Your task to perform on an android device: turn off notifications settings in the gmail app Image 0: 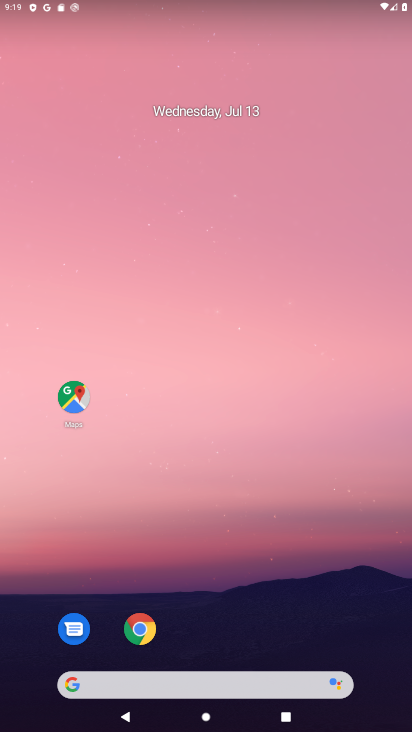
Step 0: drag from (259, 637) to (320, 66)
Your task to perform on an android device: turn off notifications settings in the gmail app Image 1: 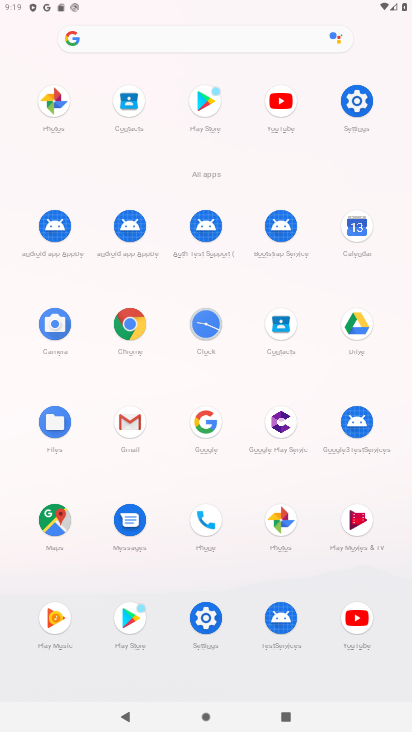
Step 1: click (352, 101)
Your task to perform on an android device: turn off notifications settings in the gmail app Image 2: 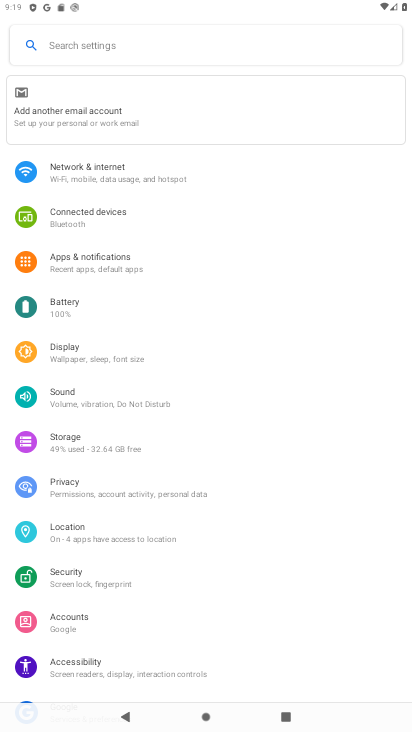
Step 2: click (151, 237)
Your task to perform on an android device: turn off notifications settings in the gmail app Image 3: 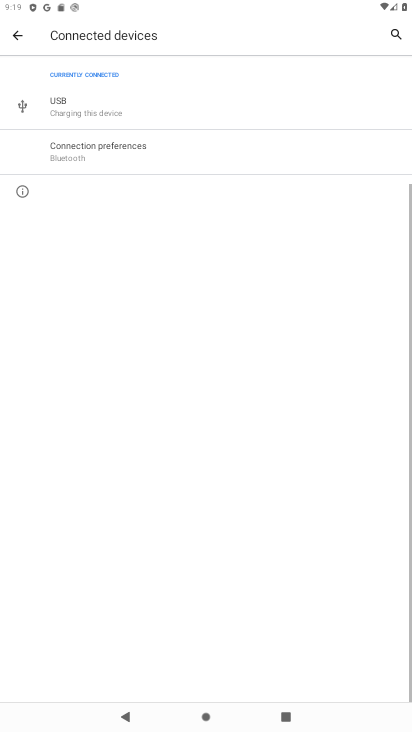
Step 3: click (18, 33)
Your task to perform on an android device: turn off notifications settings in the gmail app Image 4: 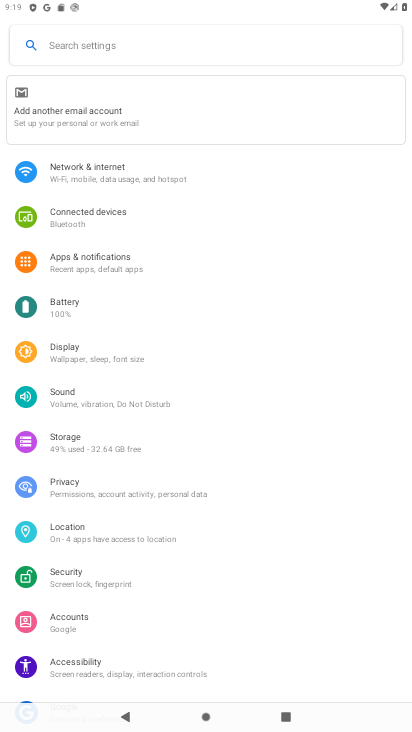
Step 4: click (133, 273)
Your task to perform on an android device: turn off notifications settings in the gmail app Image 5: 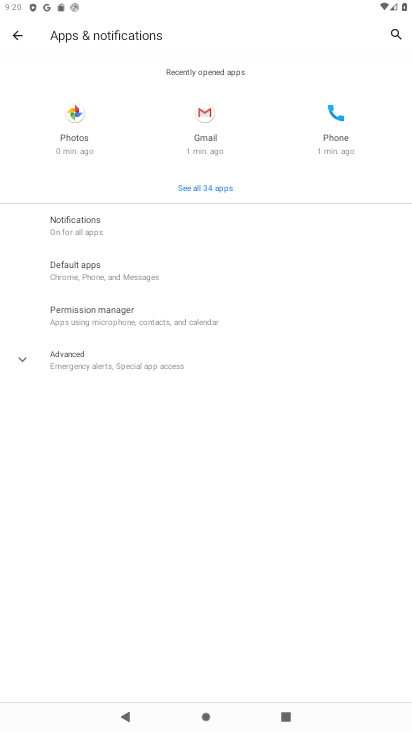
Step 5: click (141, 234)
Your task to perform on an android device: turn off notifications settings in the gmail app Image 6: 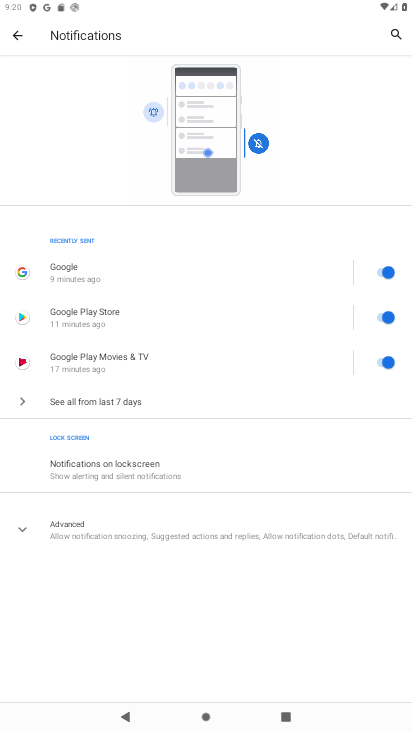
Step 6: task complete